Your task to perform on an android device: Open calendar and show me the fourth week of next month Image 0: 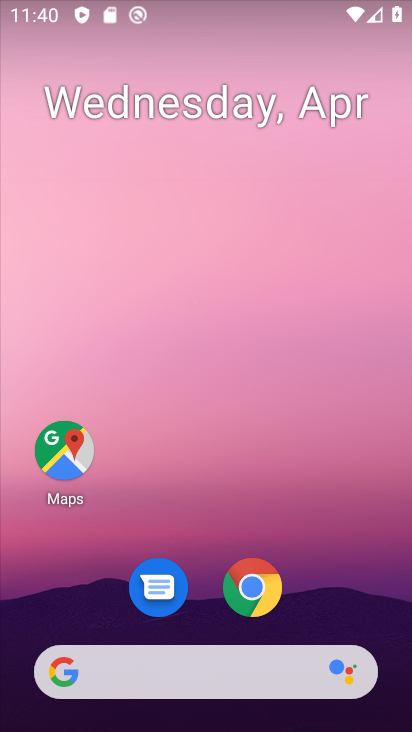
Step 0: drag from (187, 393) to (401, 360)
Your task to perform on an android device: Open calendar and show me the fourth week of next month Image 1: 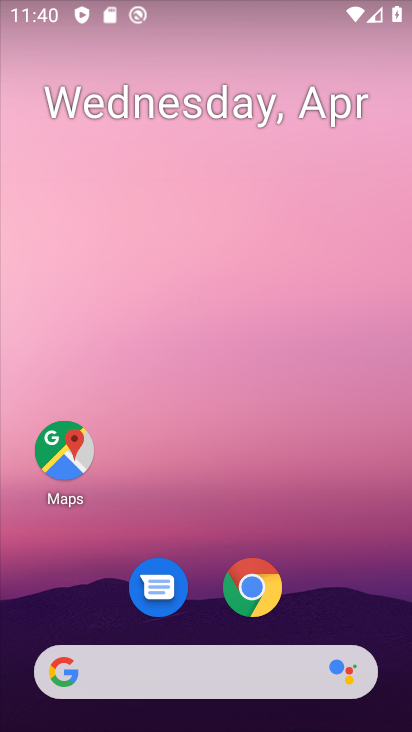
Step 1: drag from (192, 610) to (259, 79)
Your task to perform on an android device: Open calendar and show me the fourth week of next month Image 2: 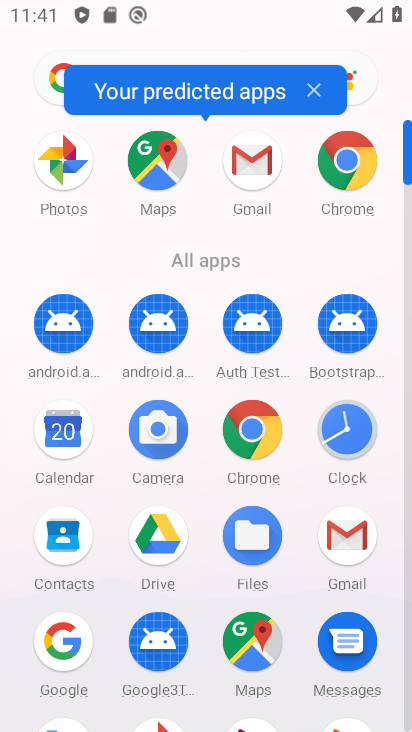
Step 2: drag from (199, 514) to (241, 74)
Your task to perform on an android device: Open calendar and show me the fourth week of next month Image 3: 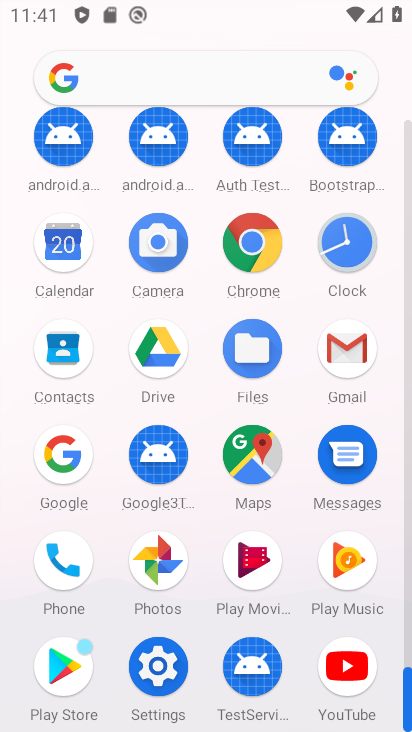
Step 3: click (69, 261)
Your task to perform on an android device: Open calendar and show me the fourth week of next month Image 4: 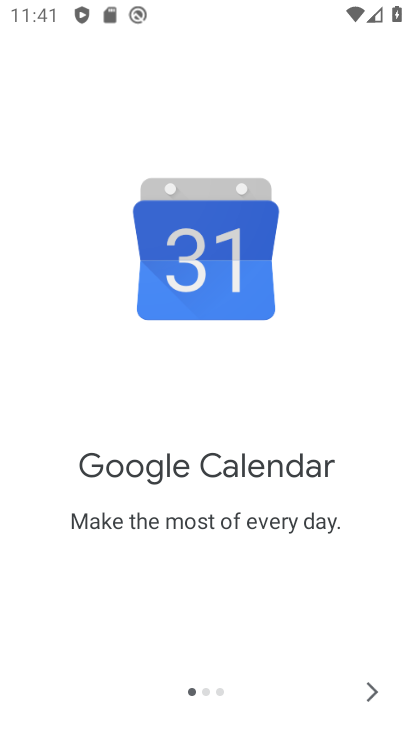
Step 4: click (373, 684)
Your task to perform on an android device: Open calendar and show me the fourth week of next month Image 5: 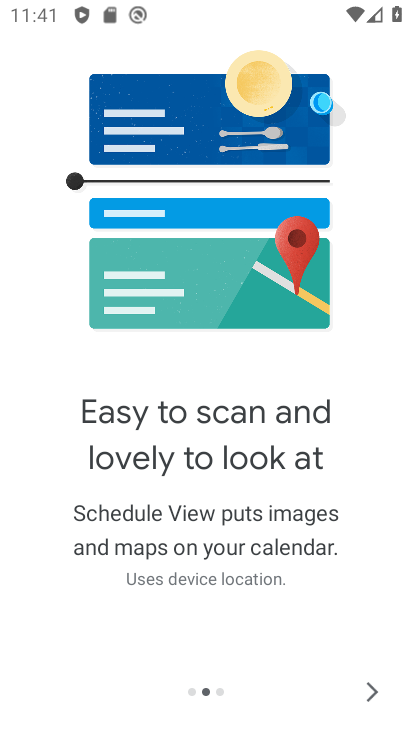
Step 5: click (373, 683)
Your task to perform on an android device: Open calendar and show me the fourth week of next month Image 6: 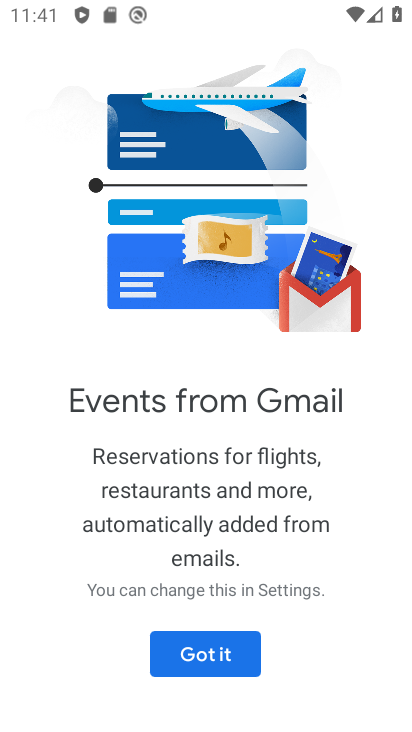
Step 6: click (216, 655)
Your task to perform on an android device: Open calendar and show me the fourth week of next month Image 7: 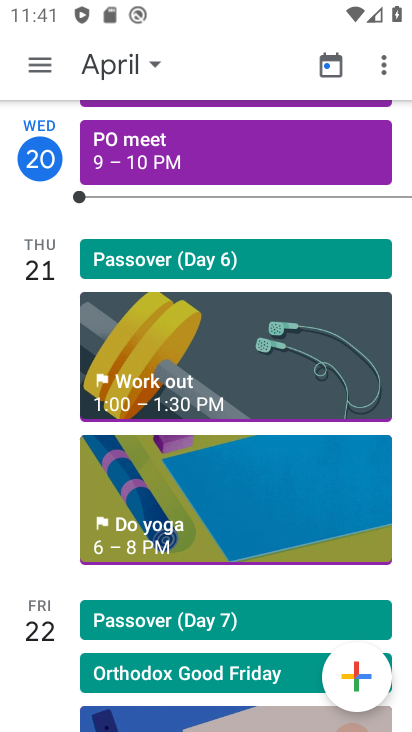
Step 7: click (38, 63)
Your task to perform on an android device: Open calendar and show me the fourth week of next month Image 8: 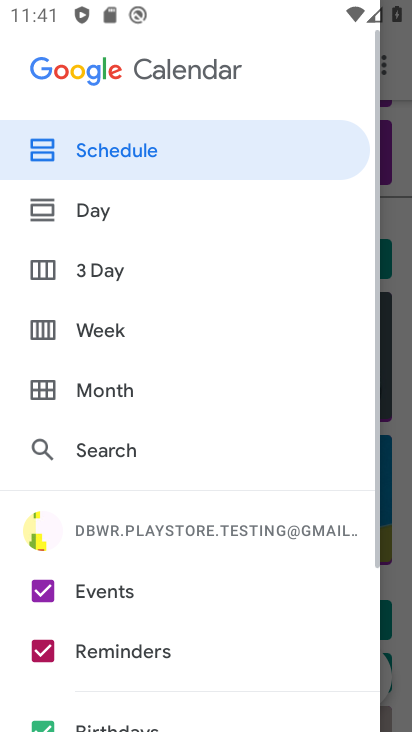
Step 8: click (100, 336)
Your task to perform on an android device: Open calendar and show me the fourth week of next month Image 9: 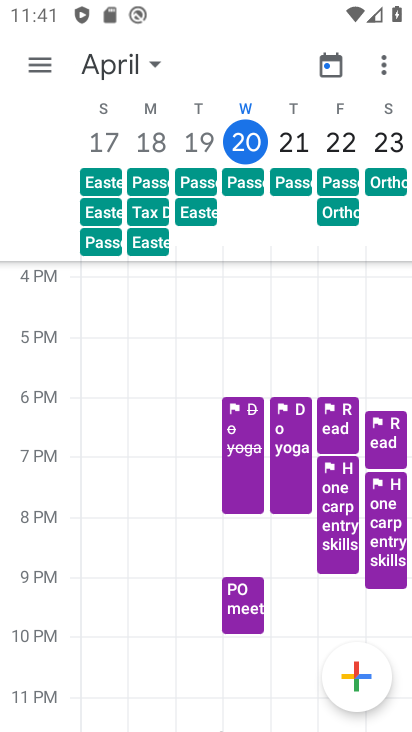
Step 9: click (130, 68)
Your task to perform on an android device: Open calendar and show me the fourth week of next month Image 10: 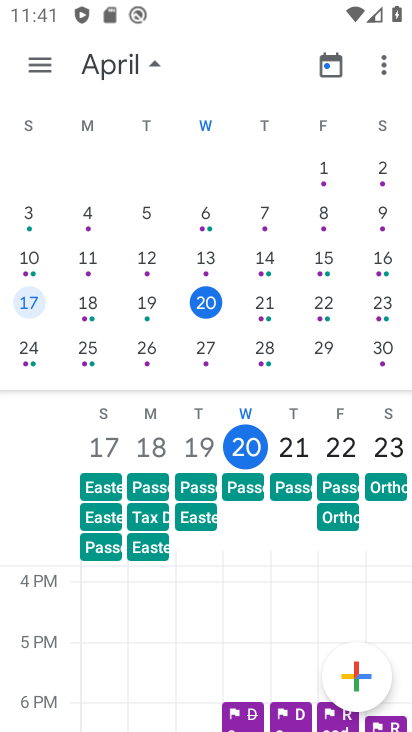
Step 10: drag from (328, 277) to (14, 388)
Your task to perform on an android device: Open calendar and show me the fourth week of next month Image 11: 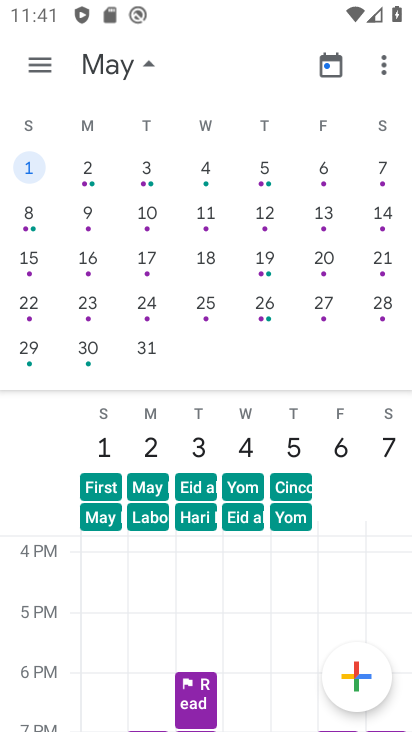
Step 11: click (40, 66)
Your task to perform on an android device: Open calendar and show me the fourth week of next month Image 12: 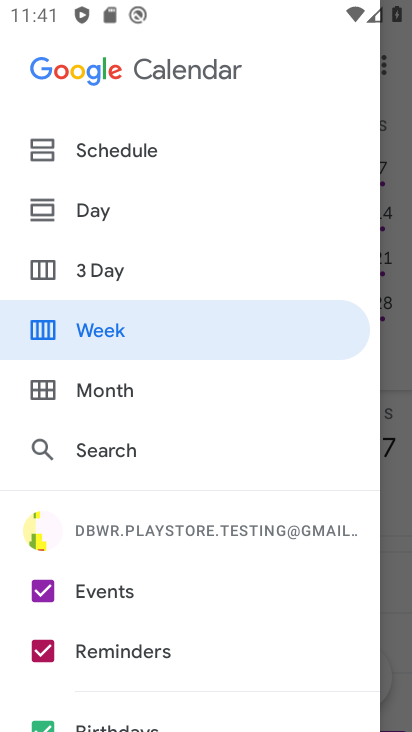
Step 12: click (112, 337)
Your task to perform on an android device: Open calendar and show me the fourth week of next month Image 13: 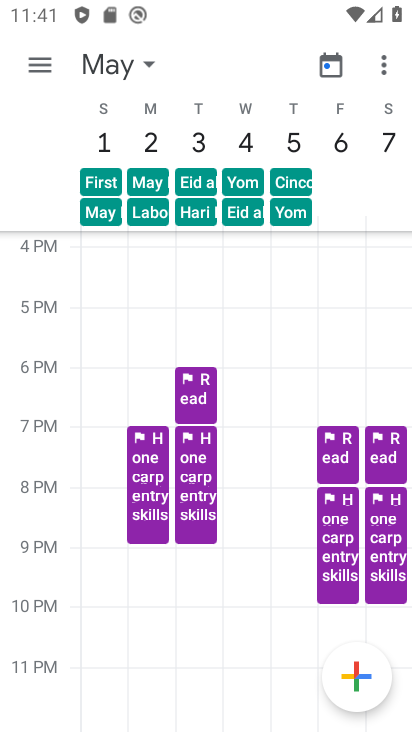
Step 13: task complete